Your task to perform on an android device: Open Amazon Image 0: 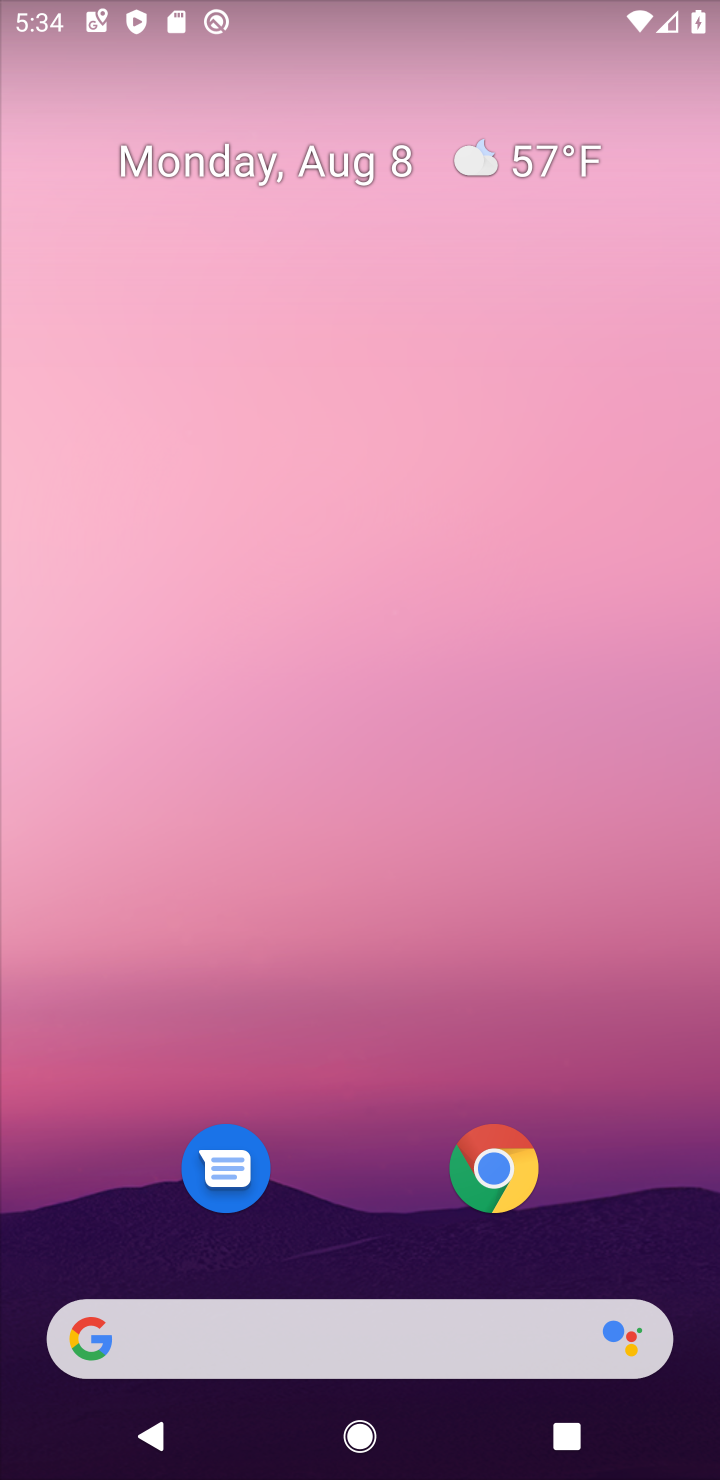
Step 0: click (493, 1182)
Your task to perform on an android device: Open Amazon Image 1: 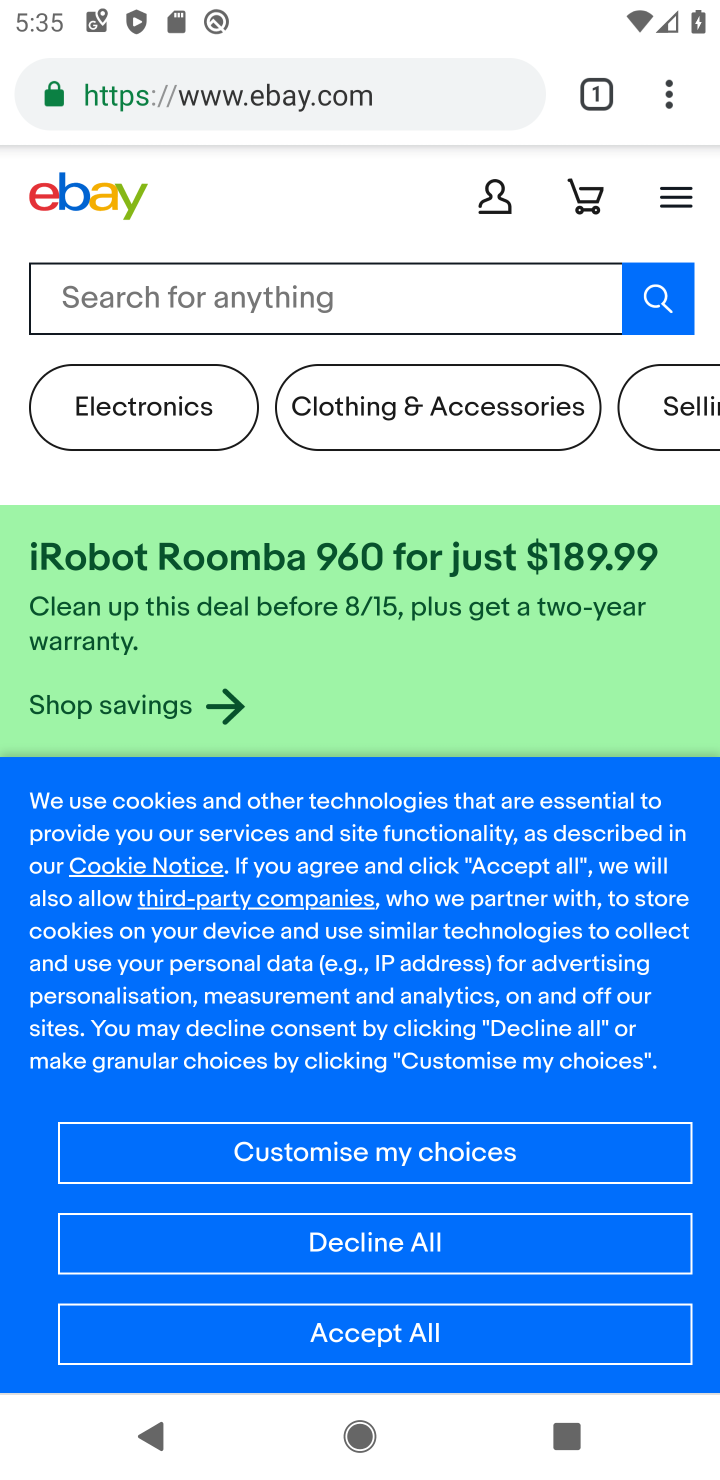
Step 1: click (380, 109)
Your task to perform on an android device: Open Amazon Image 2: 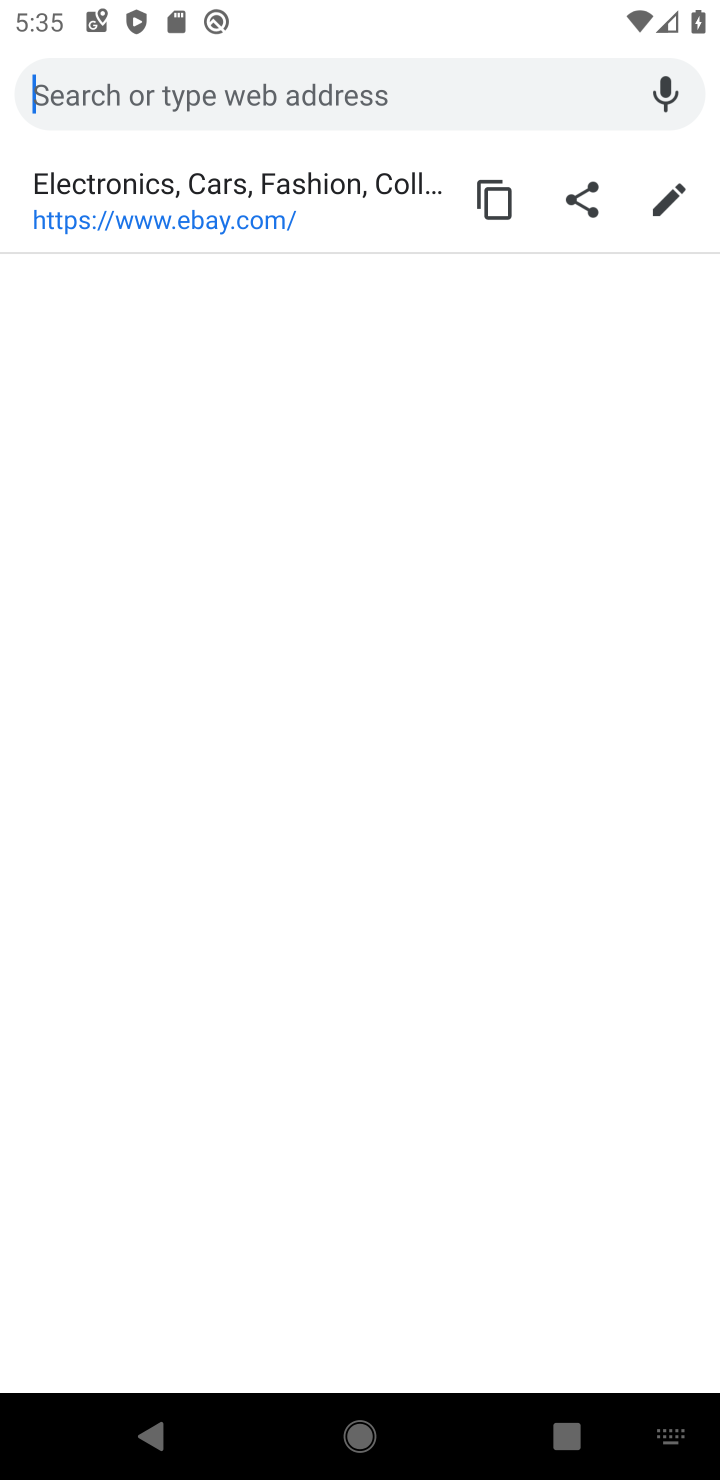
Step 2: type "amazom"
Your task to perform on an android device: Open Amazon Image 3: 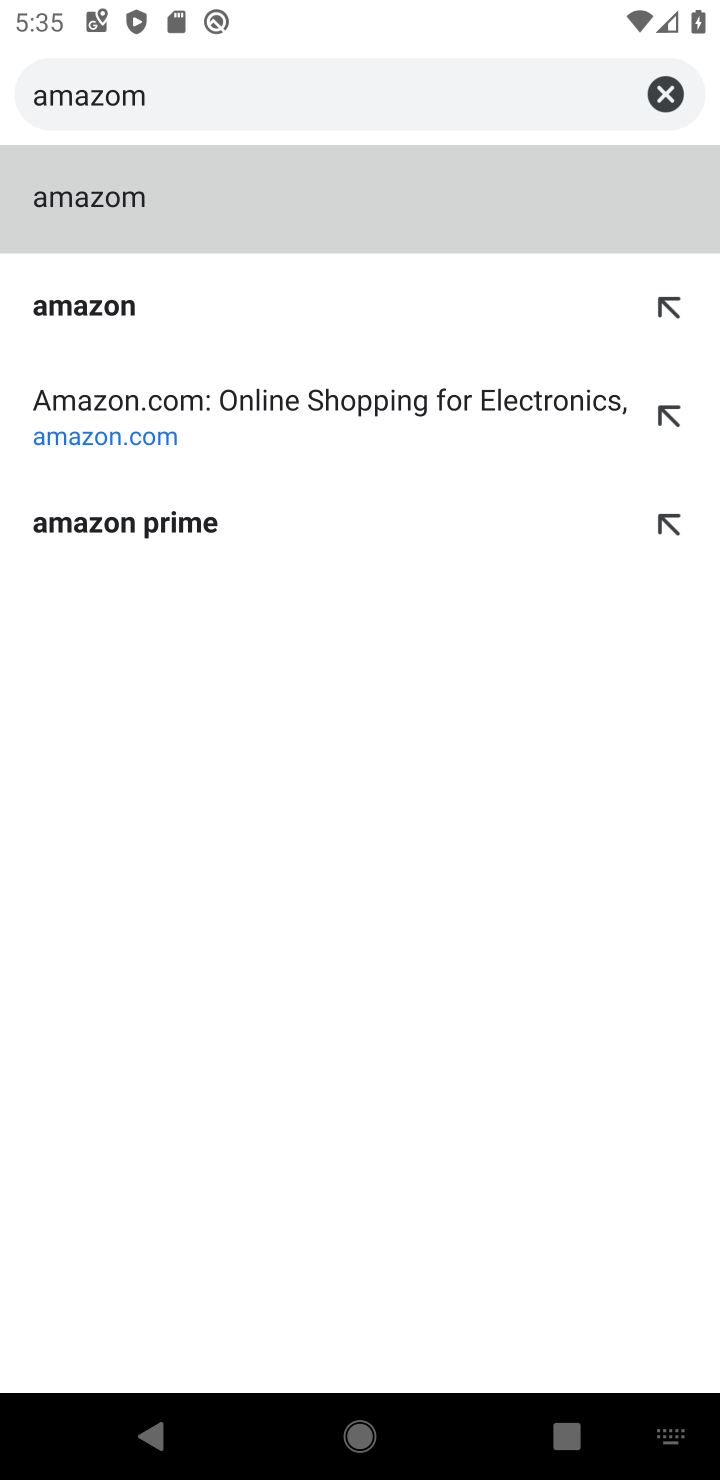
Step 3: click (163, 433)
Your task to perform on an android device: Open Amazon Image 4: 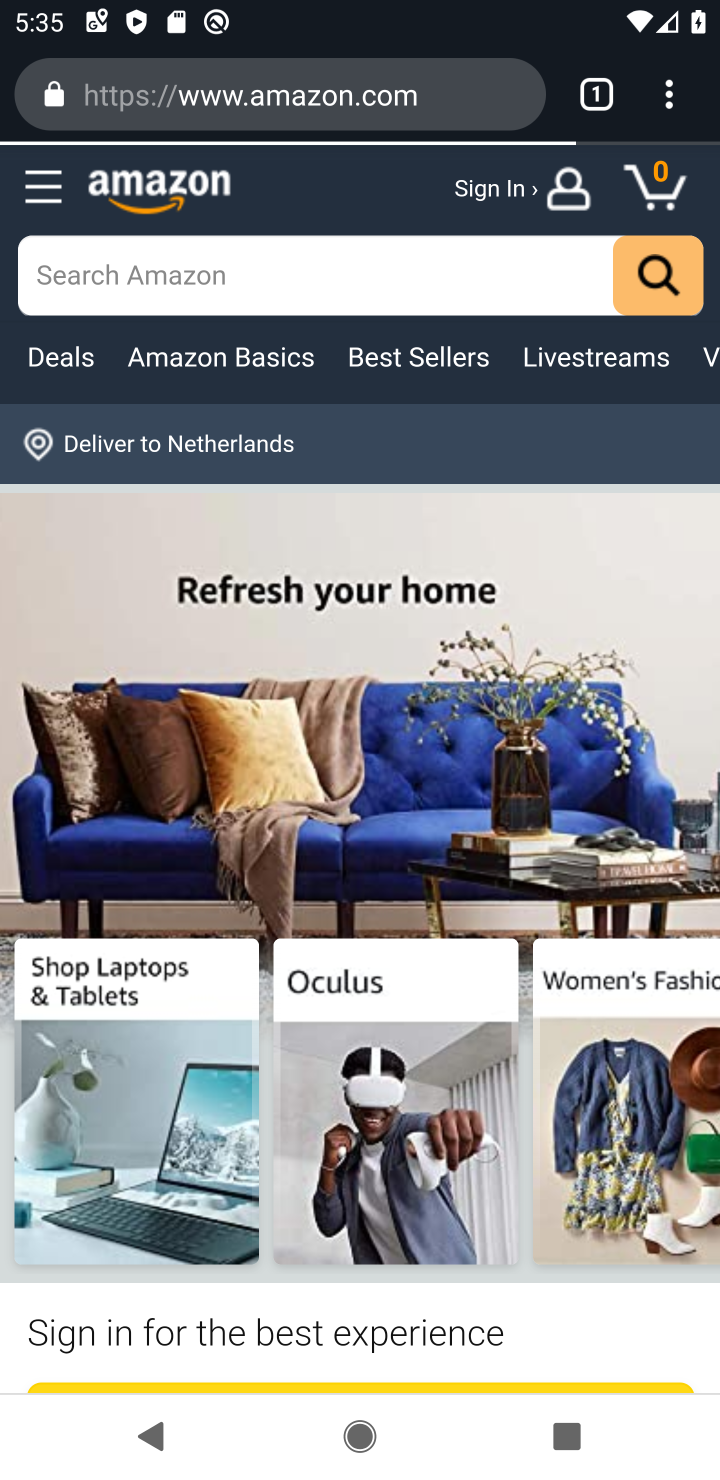
Step 4: task complete